Your task to perform on an android device: Toggle the flashlight Image 0: 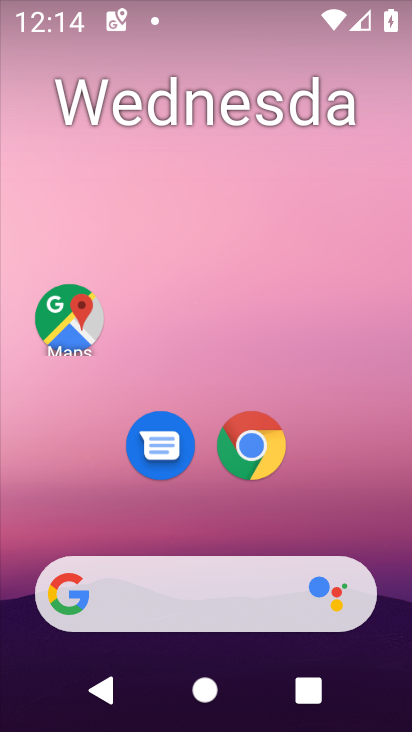
Step 0: drag from (245, 727) to (215, 96)
Your task to perform on an android device: Toggle the flashlight Image 1: 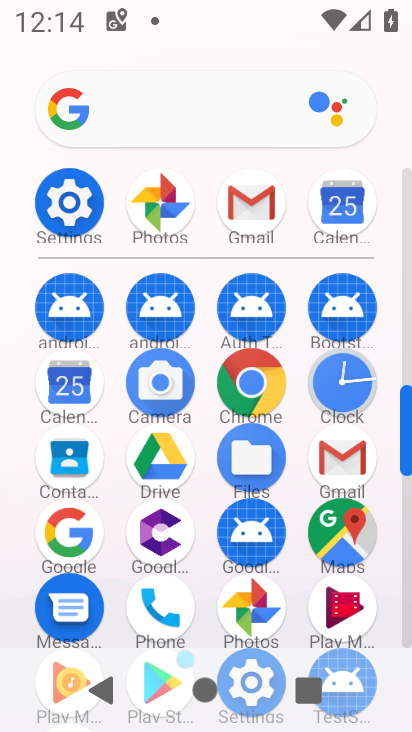
Step 1: click (73, 209)
Your task to perform on an android device: Toggle the flashlight Image 2: 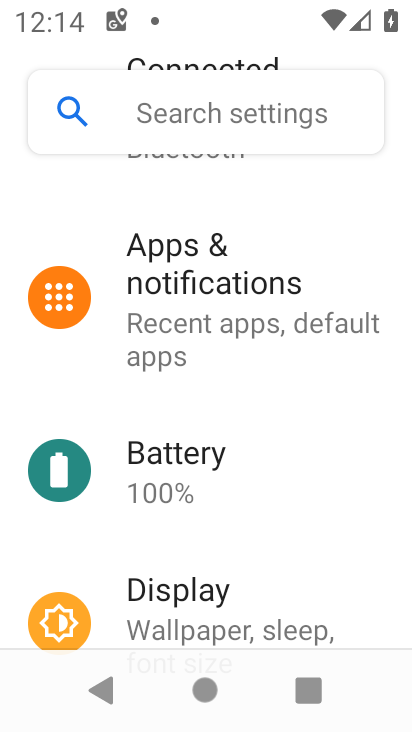
Step 2: task complete